Your task to perform on an android device: change the clock display to analog Image 0: 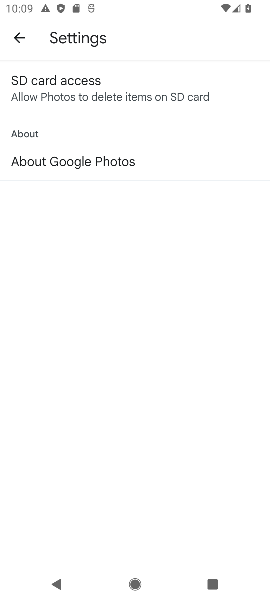
Step 0: press home button
Your task to perform on an android device: change the clock display to analog Image 1: 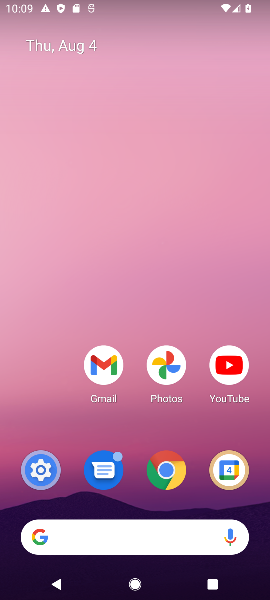
Step 1: drag from (124, 423) to (133, 70)
Your task to perform on an android device: change the clock display to analog Image 2: 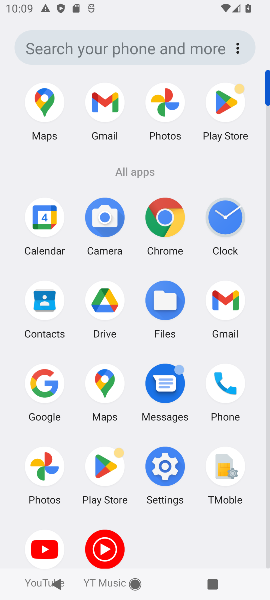
Step 2: click (220, 215)
Your task to perform on an android device: change the clock display to analog Image 3: 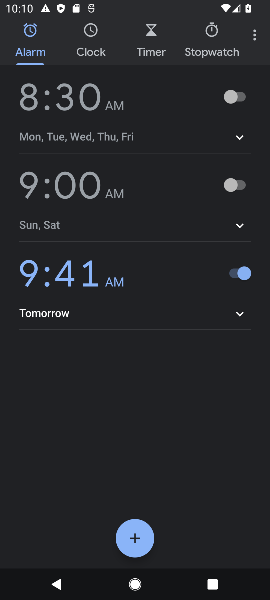
Step 3: click (248, 37)
Your task to perform on an android device: change the clock display to analog Image 4: 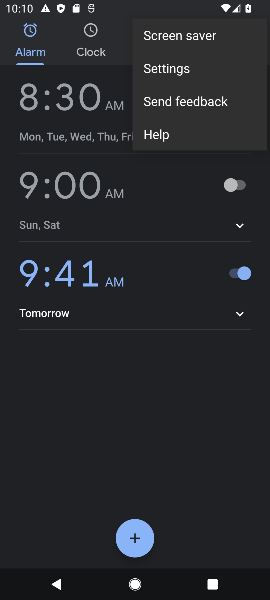
Step 4: click (164, 79)
Your task to perform on an android device: change the clock display to analog Image 5: 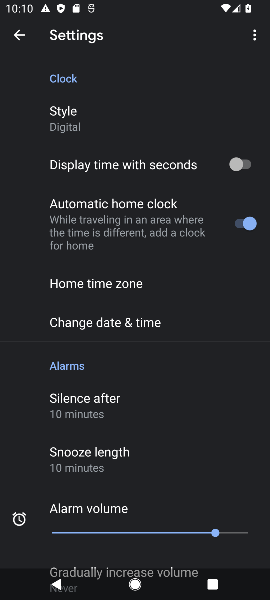
Step 5: click (80, 115)
Your task to perform on an android device: change the clock display to analog Image 6: 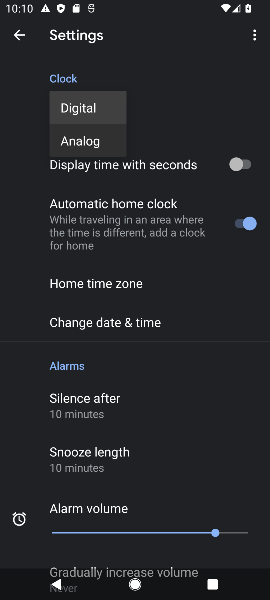
Step 6: click (82, 147)
Your task to perform on an android device: change the clock display to analog Image 7: 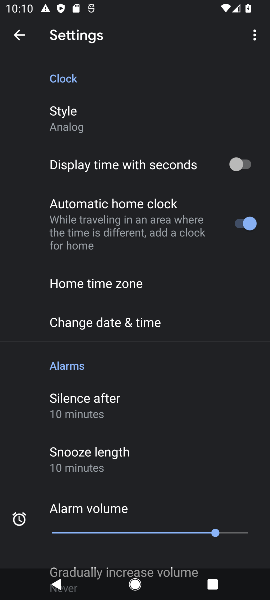
Step 7: task complete